Your task to perform on an android device: Go to accessibility settings Image 0: 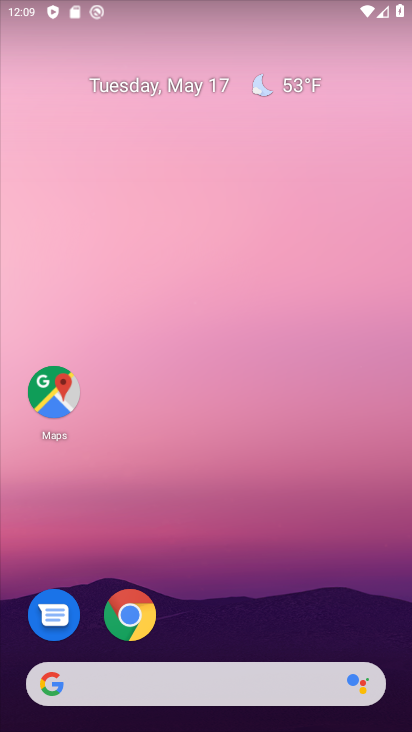
Step 0: click (122, 630)
Your task to perform on an android device: Go to accessibility settings Image 1: 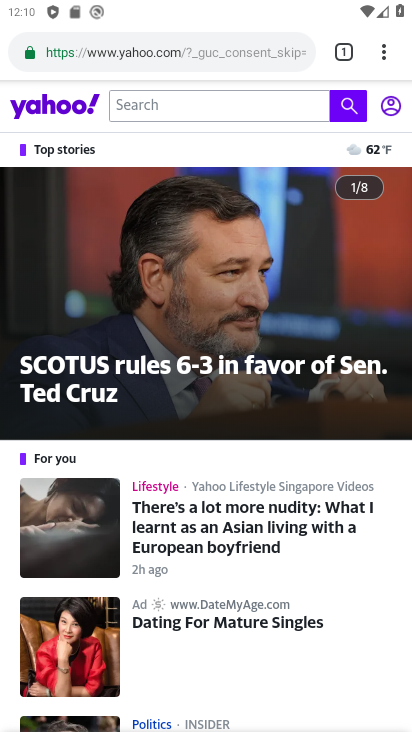
Step 1: click (374, 66)
Your task to perform on an android device: Go to accessibility settings Image 2: 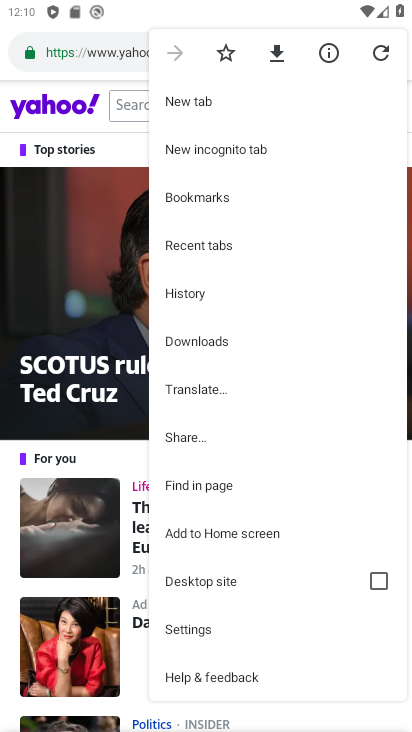
Step 2: click (204, 627)
Your task to perform on an android device: Go to accessibility settings Image 3: 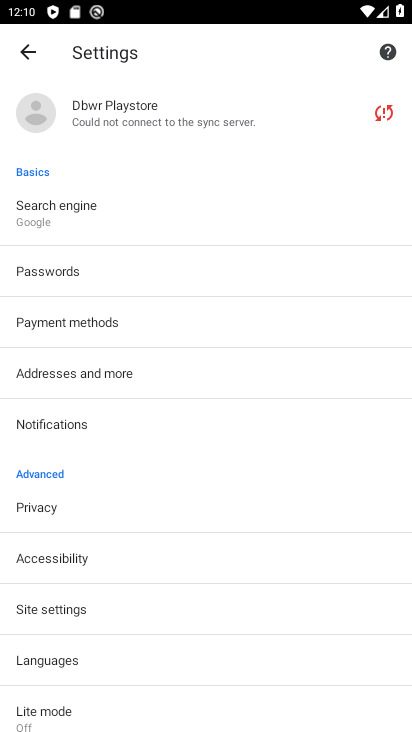
Step 3: click (96, 566)
Your task to perform on an android device: Go to accessibility settings Image 4: 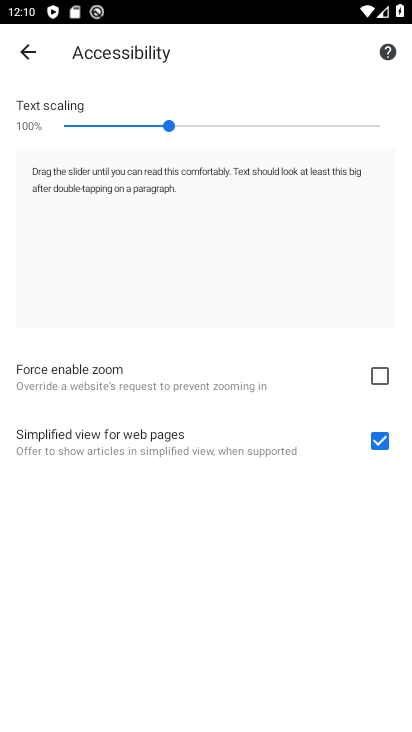
Step 4: task complete